Your task to perform on an android device: empty trash in the gmail app Image 0: 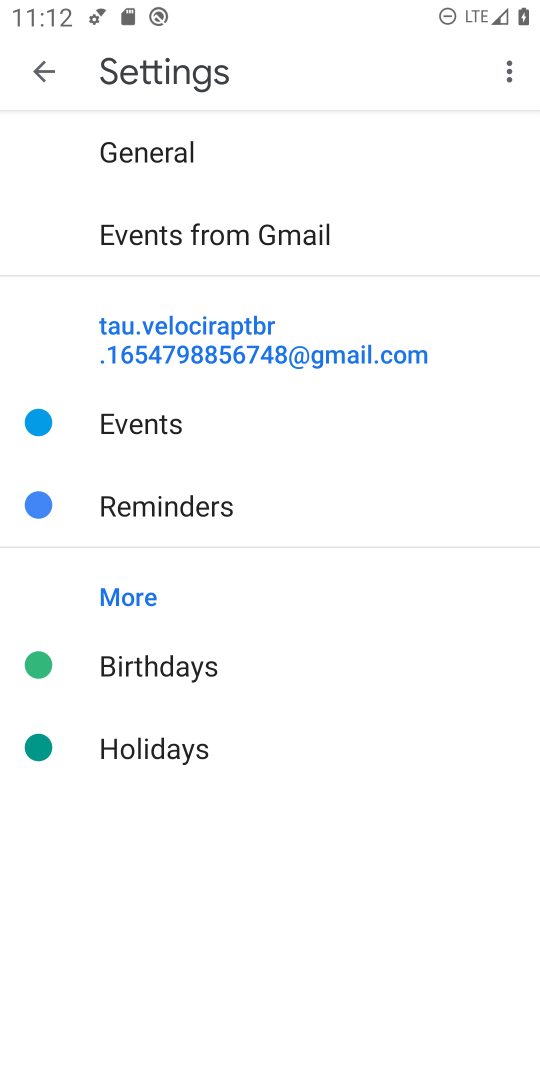
Step 0: press home button
Your task to perform on an android device: empty trash in the gmail app Image 1: 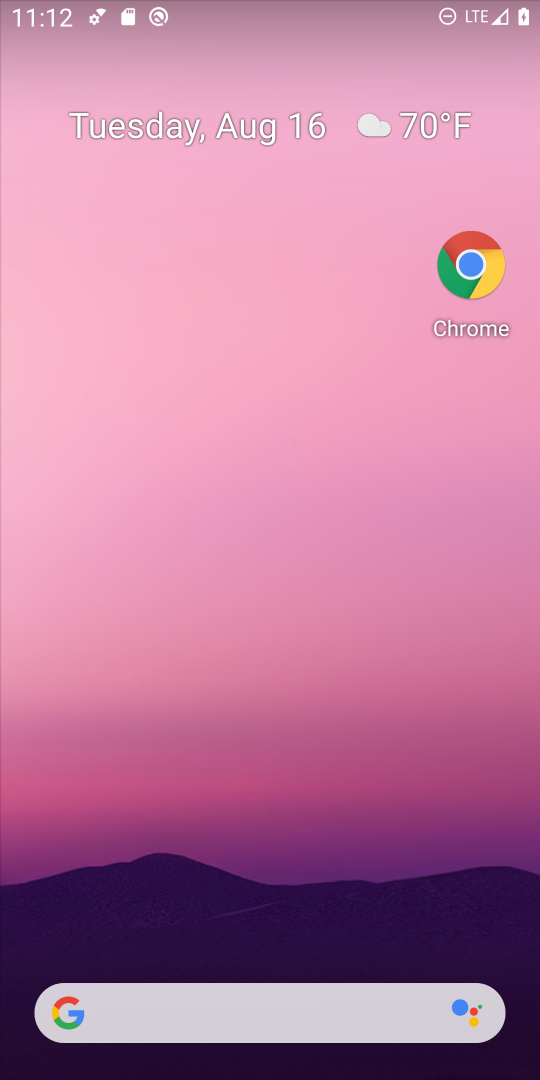
Step 1: drag from (263, 891) to (283, 175)
Your task to perform on an android device: empty trash in the gmail app Image 2: 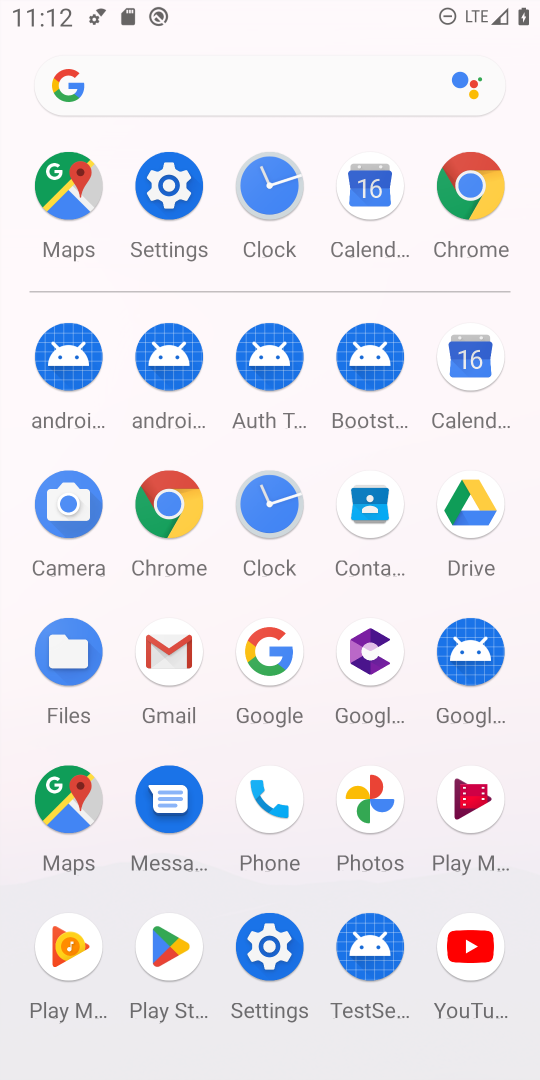
Step 2: click (166, 645)
Your task to perform on an android device: empty trash in the gmail app Image 3: 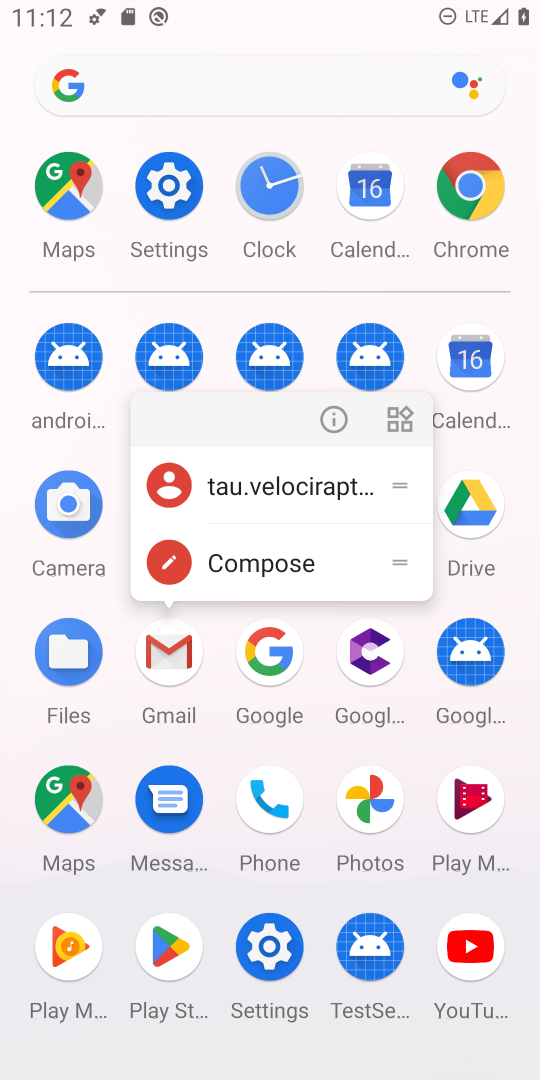
Step 3: click (161, 663)
Your task to perform on an android device: empty trash in the gmail app Image 4: 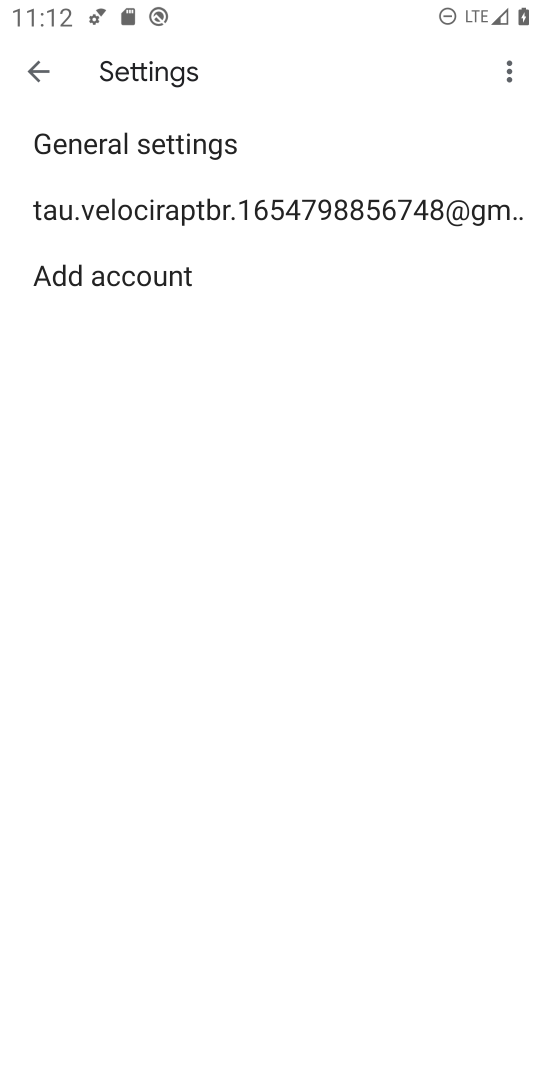
Step 4: click (35, 76)
Your task to perform on an android device: empty trash in the gmail app Image 5: 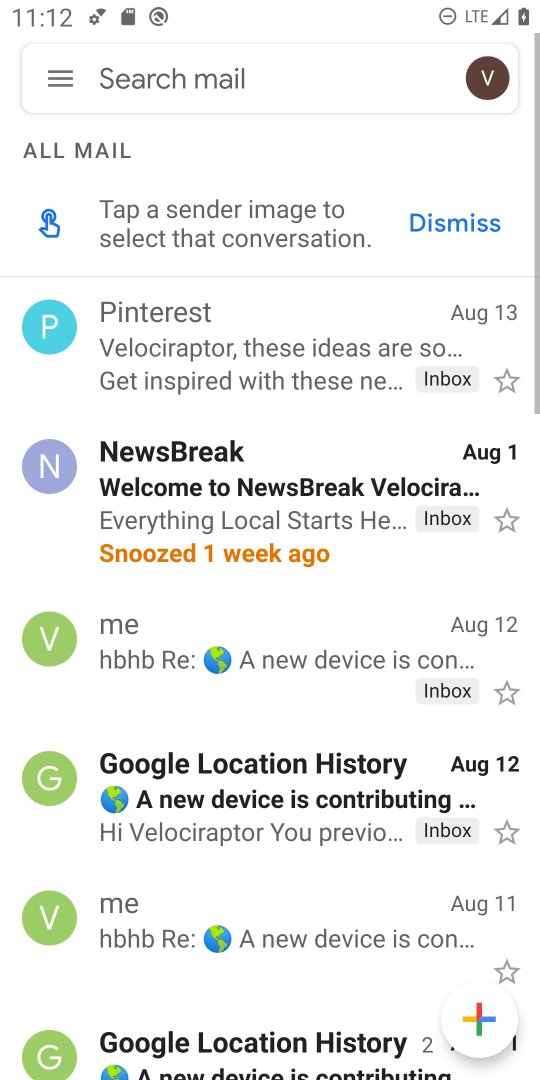
Step 5: click (35, 76)
Your task to perform on an android device: empty trash in the gmail app Image 6: 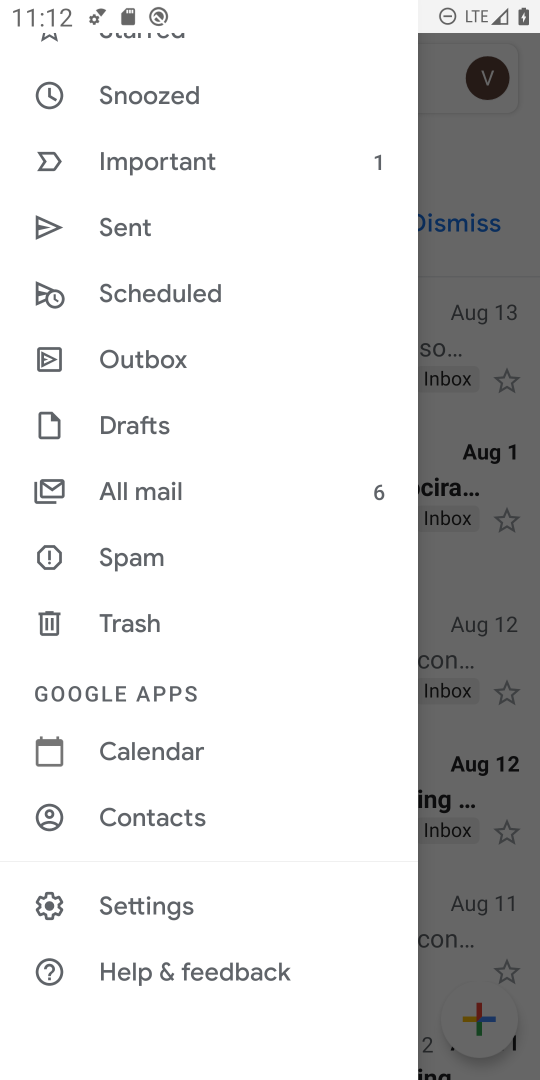
Step 6: click (132, 642)
Your task to perform on an android device: empty trash in the gmail app Image 7: 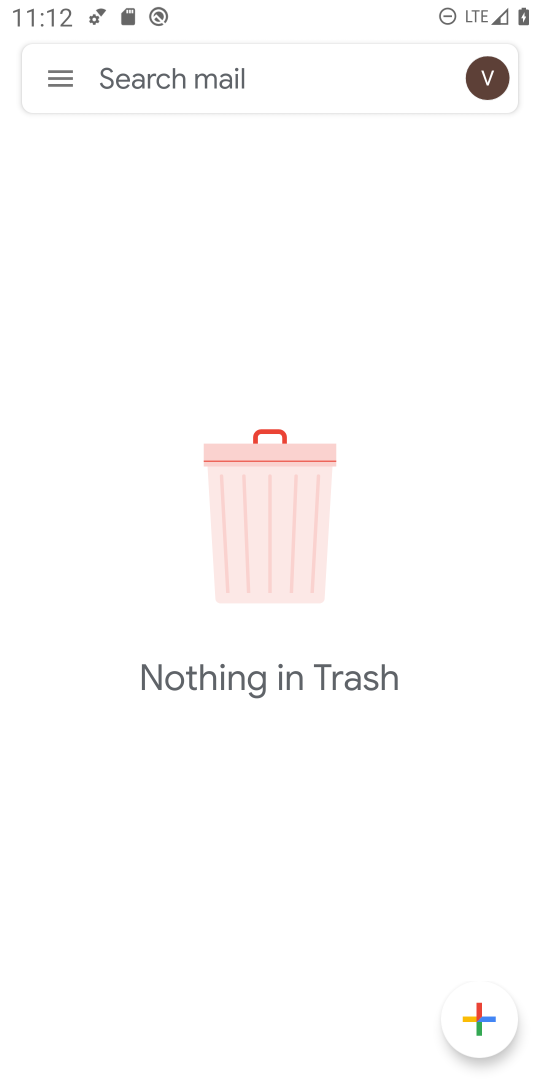
Step 7: task complete